Your task to perform on an android device: Show me popular videos on Youtube Image 0: 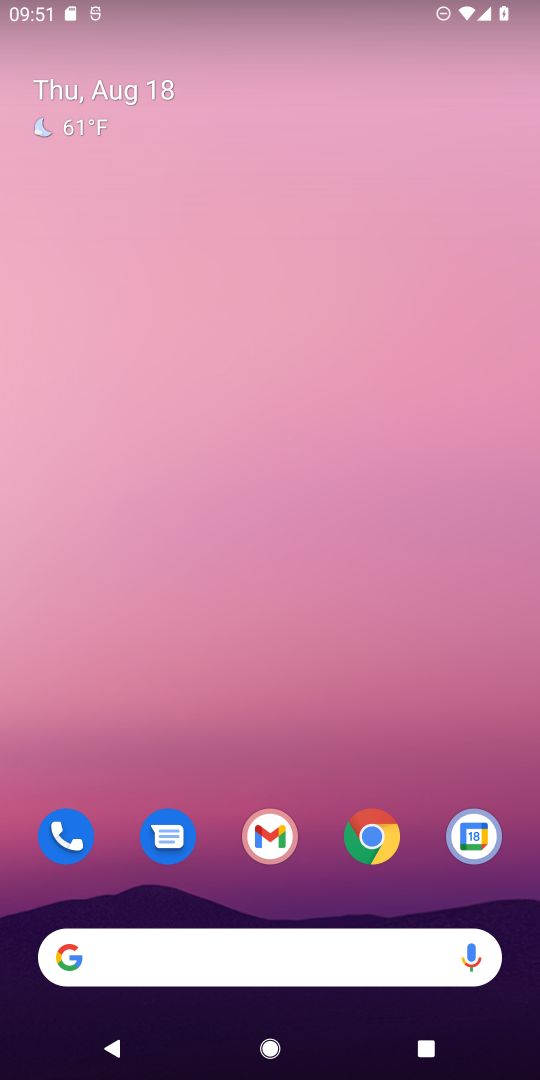
Step 0: drag from (310, 886) to (350, 11)
Your task to perform on an android device: Show me popular videos on Youtube Image 1: 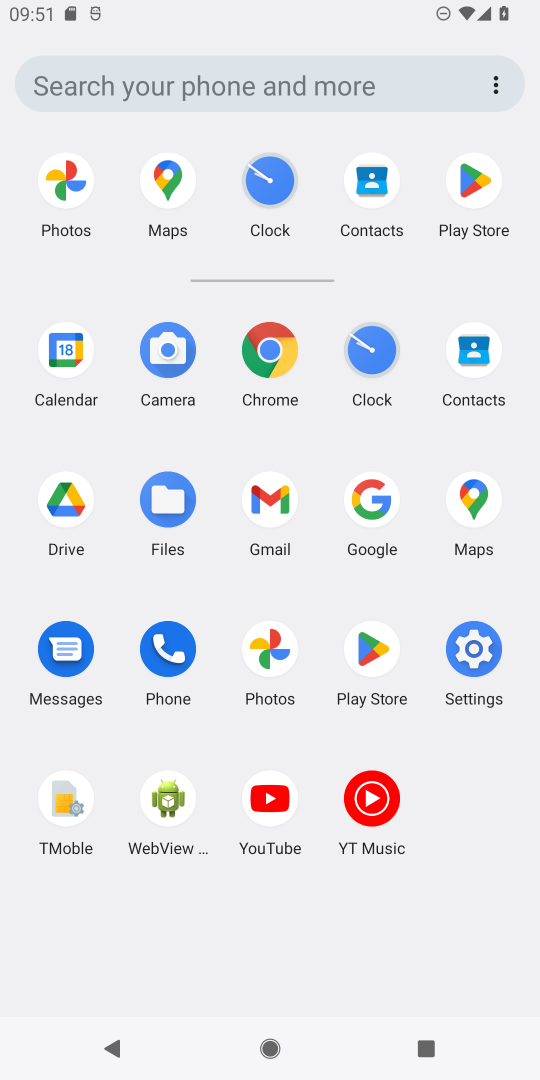
Step 1: click (269, 797)
Your task to perform on an android device: Show me popular videos on Youtube Image 2: 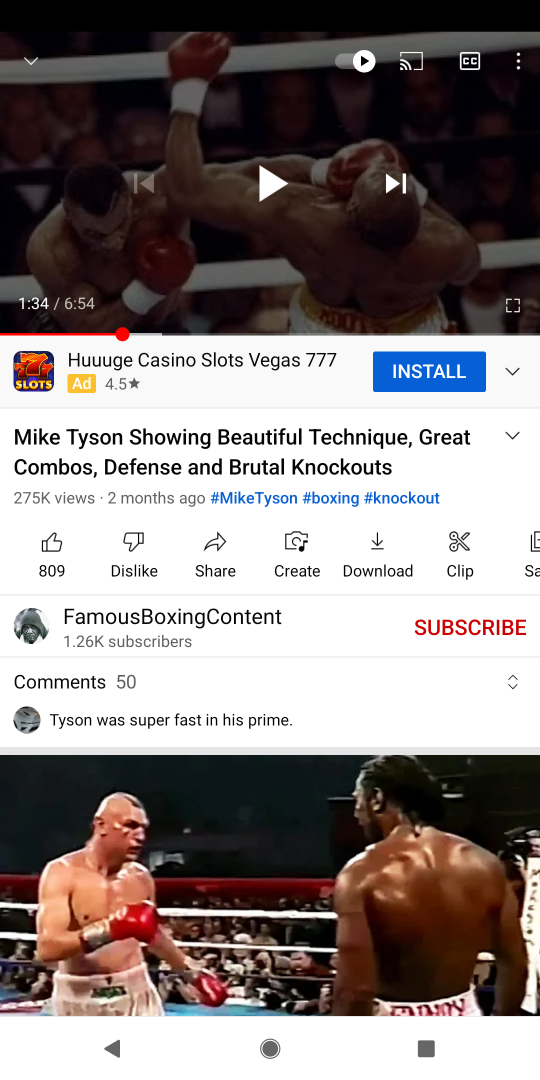
Step 2: press back button
Your task to perform on an android device: Show me popular videos on Youtube Image 3: 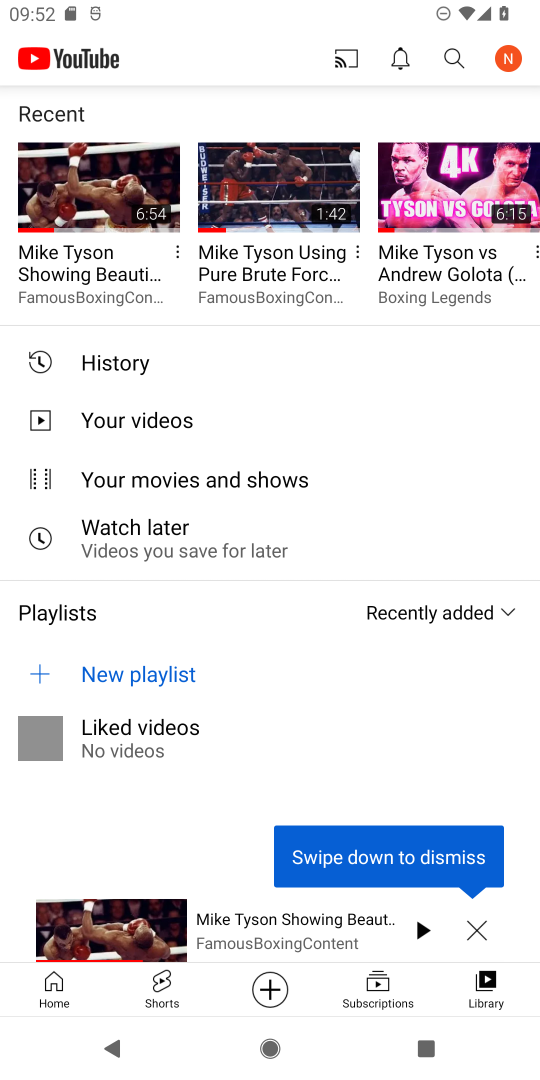
Step 3: drag from (141, 173) to (463, 911)
Your task to perform on an android device: Show me popular videos on Youtube Image 4: 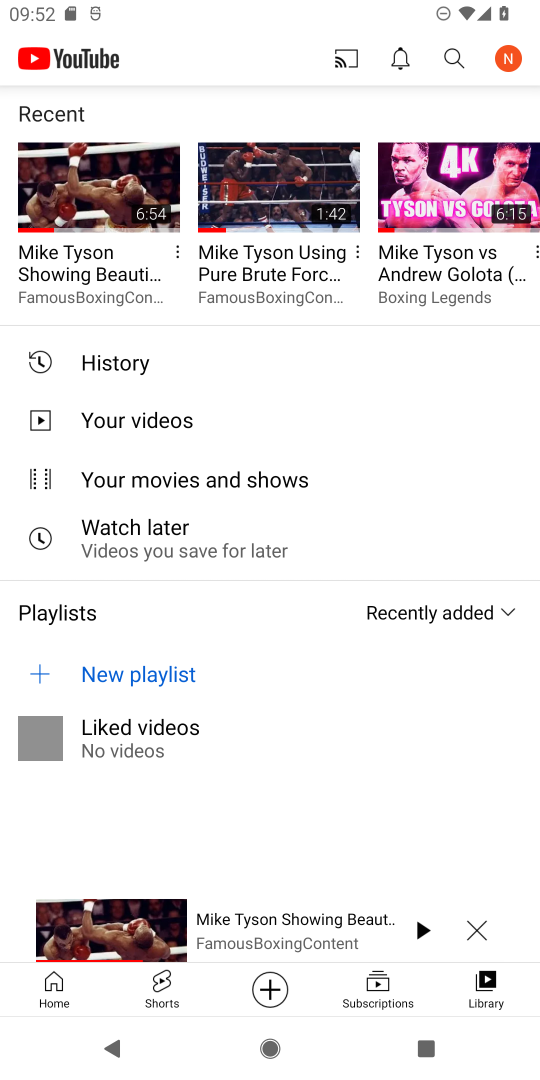
Step 4: click (48, 985)
Your task to perform on an android device: Show me popular videos on Youtube Image 5: 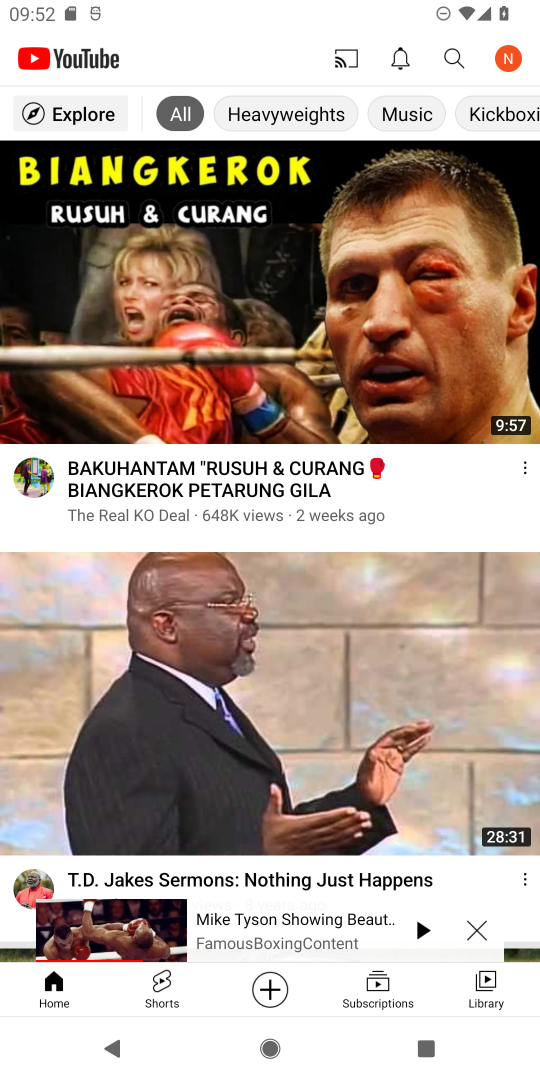
Step 5: click (43, 112)
Your task to perform on an android device: Show me popular videos on Youtube Image 6: 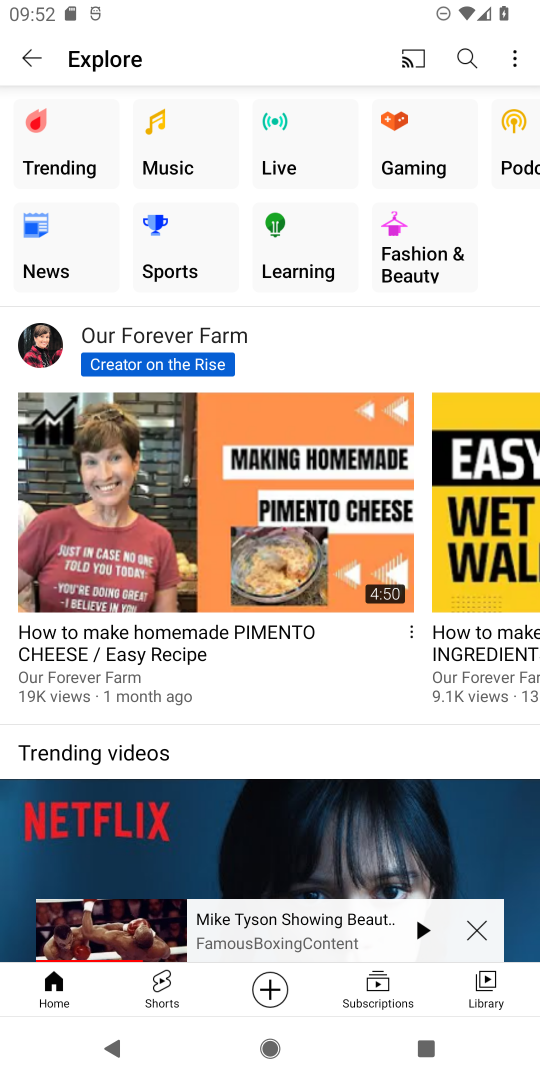
Step 6: task complete